Your task to perform on an android device: Check the settings for the Google Chrome app Image 0: 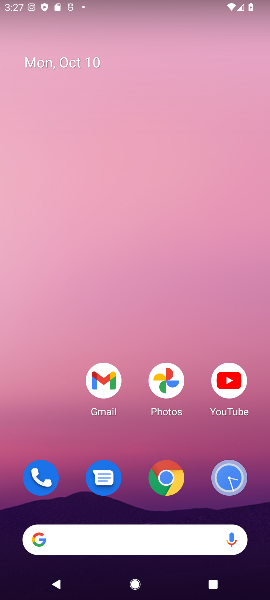
Step 0: click (160, 472)
Your task to perform on an android device: Check the settings for the Google Chrome app Image 1: 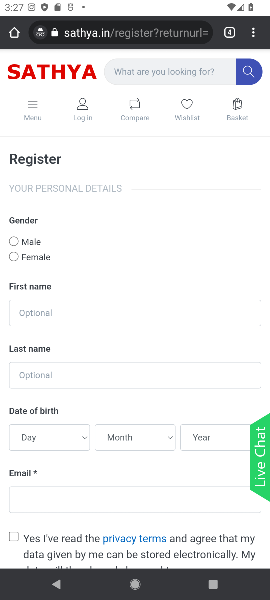
Step 1: click (255, 30)
Your task to perform on an android device: Check the settings for the Google Chrome app Image 2: 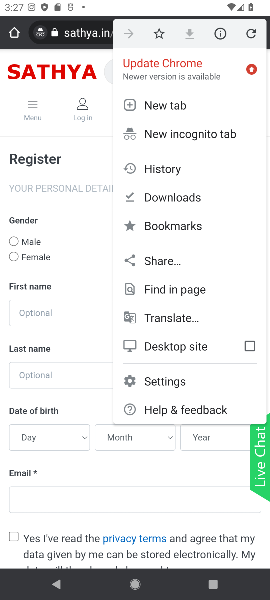
Step 2: click (149, 380)
Your task to perform on an android device: Check the settings for the Google Chrome app Image 3: 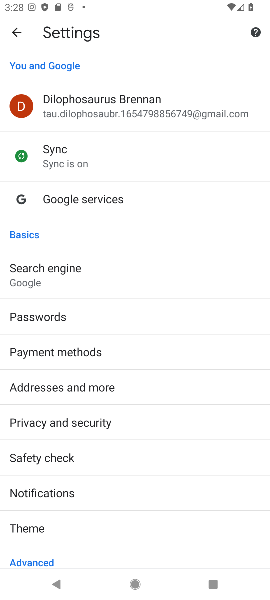
Step 3: task complete